Your task to perform on an android device: Go to calendar. Show me events next week Image 0: 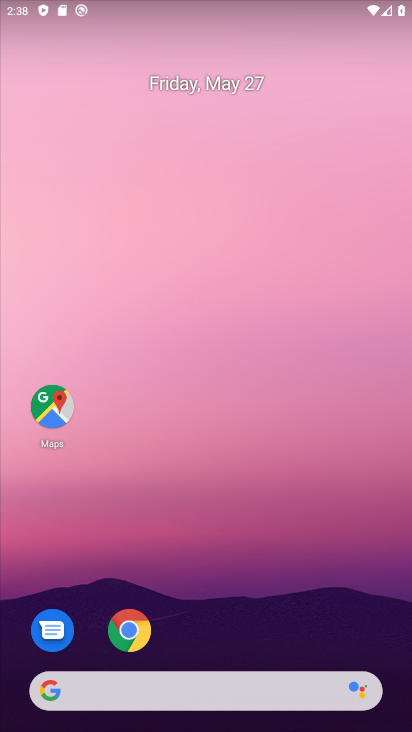
Step 0: drag from (183, 661) to (201, 98)
Your task to perform on an android device: Go to calendar. Show me events next week Image 1: 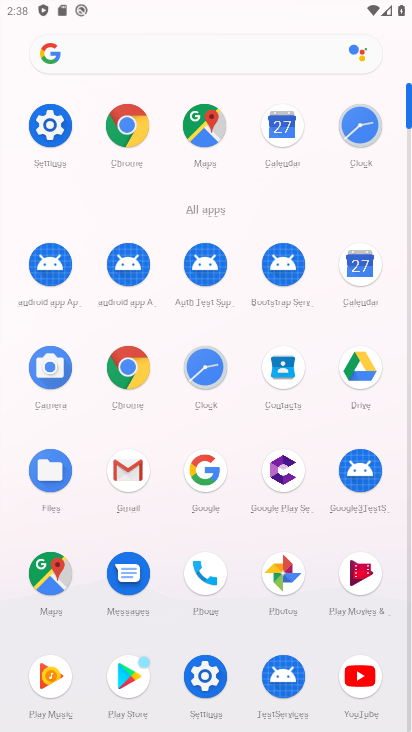
Step 1: click (361, 254)
Your task to perform on an android device: Go to calendar. Show me events next week Image 2: 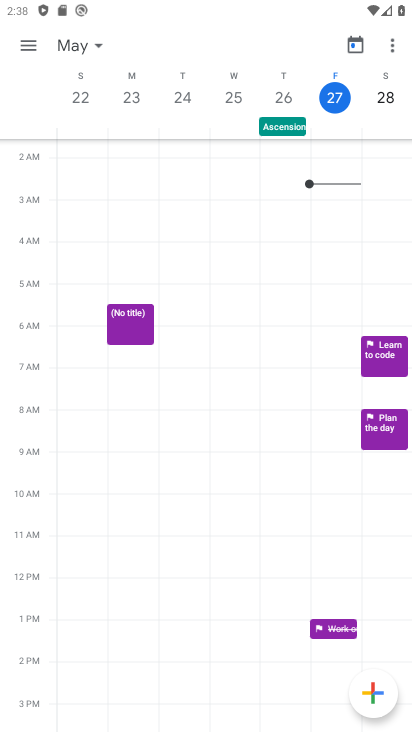
Step 2: task complete